Your task to perform on an android device: visit the assistant section in the google photos Image 0: 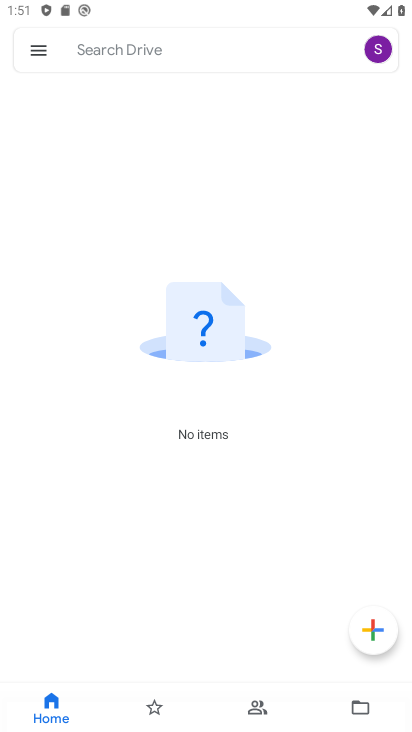
Step 0: press home button
Your task to perform on an android device: visit the assistant section in the google photos Image 1: 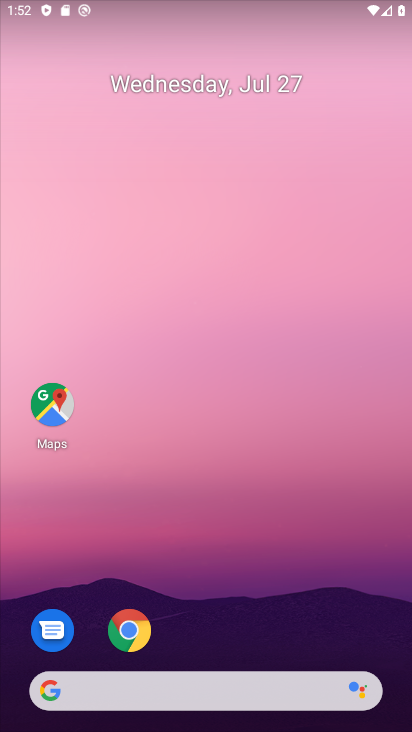
Step 1: drag from (271, 609) to (219, 150)
Your task to perform on an android device: visit the assistant section in the google photos Image 2: 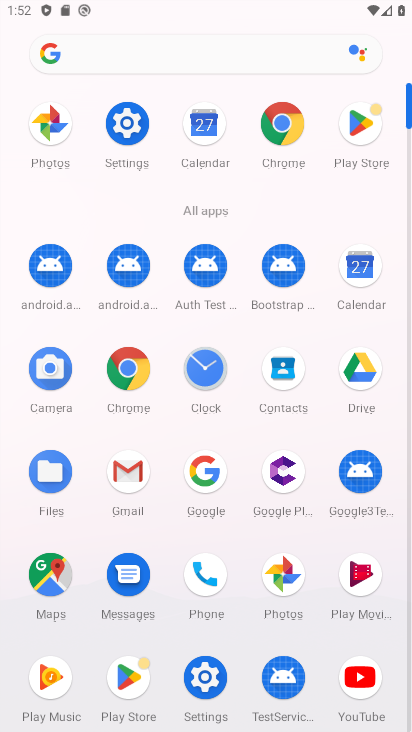
Step 2: click (289, 577)
Your task to perform on an android device: visit the assistant section in the google photos Image 3: 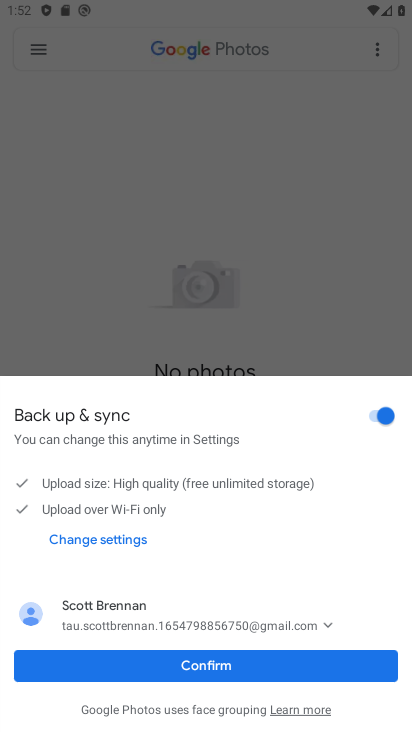
Step 3: click (308, 662)
Your task to perform on an android device: visit the assistant section in the google photos Image 4: 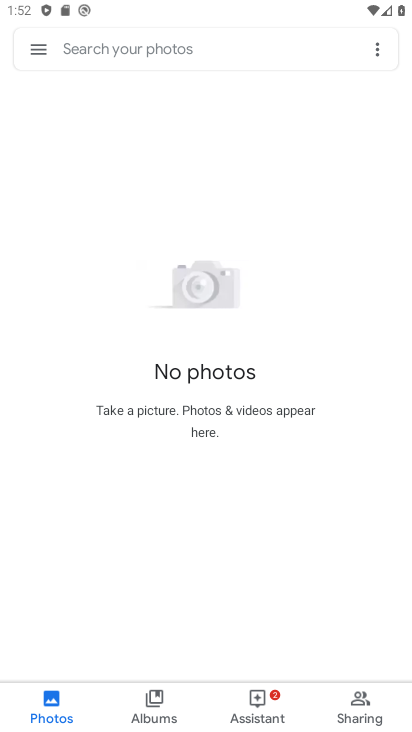
Step 4: click (37, 51)
Your task to perform on an android device: visit the assistant section in the google photos Image 5: 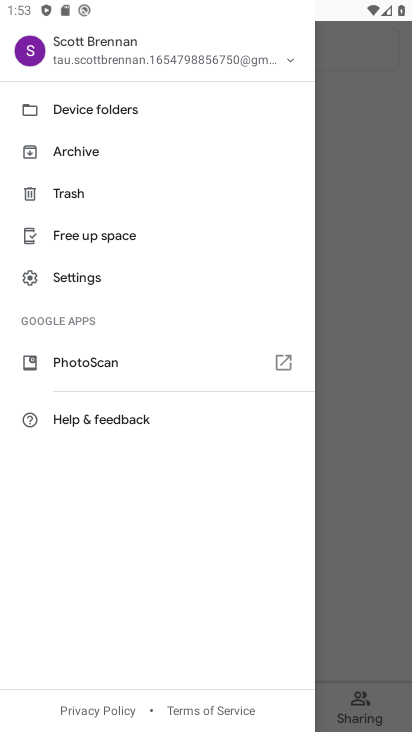
Step 5: click (384, 396)
Your task to perform on an android device: visit the assistant section in the google photos Image 6: 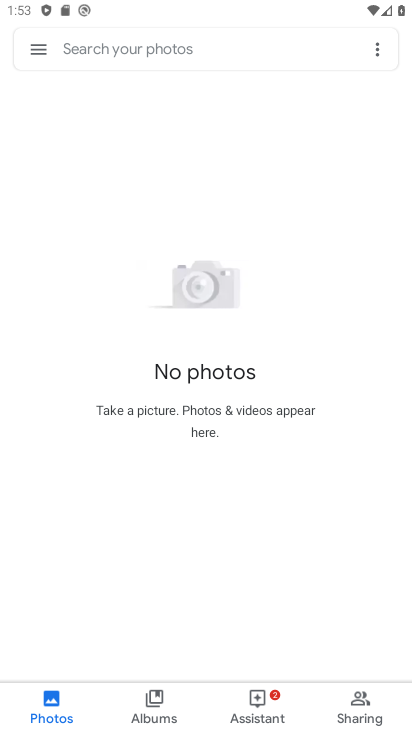
Step 6: click (255, 700)
Your task to perform on an android device: visit the assistant section in the google photos Image 7: 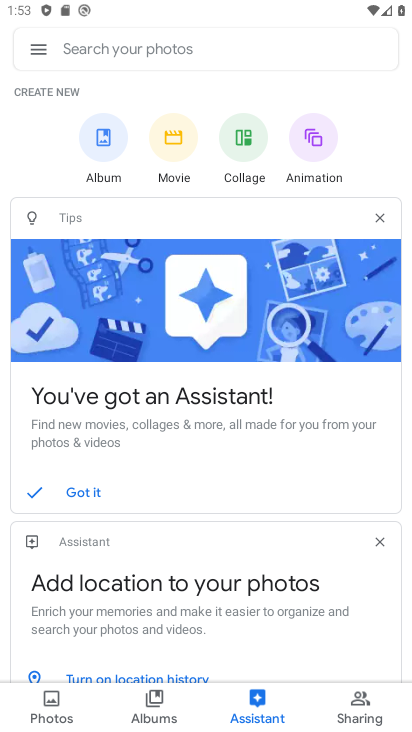
Step 7: task complete